Your task to perform on an android device: Open accessibility settings Image 0: 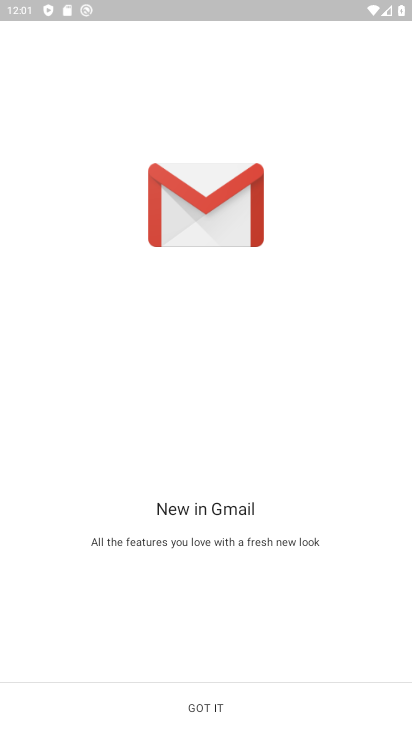
Step 0: press home button
Your task to perform on an android device: Open accessibility settings Image 1: 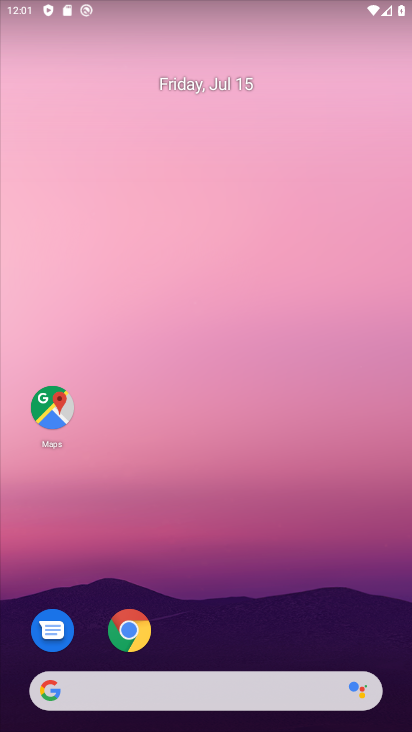
Step 1: drag from (215, 653) to (256, 186)
Your task to perform on an android device: Open accessibility settings Image 2: 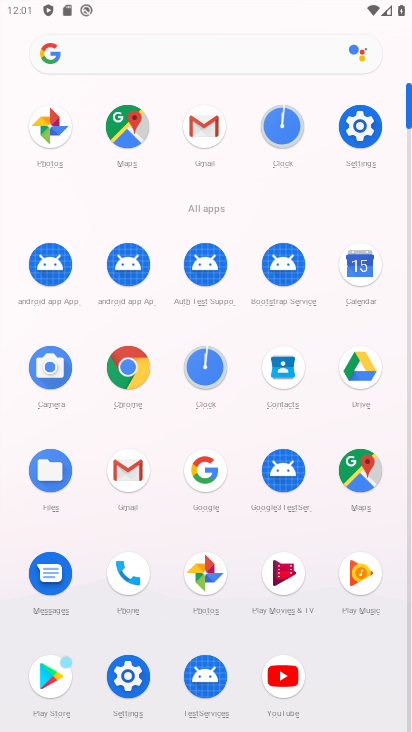
Step 2: click (120, 684)
Your task to perform on an android device: Open accessibility settings Image 3: 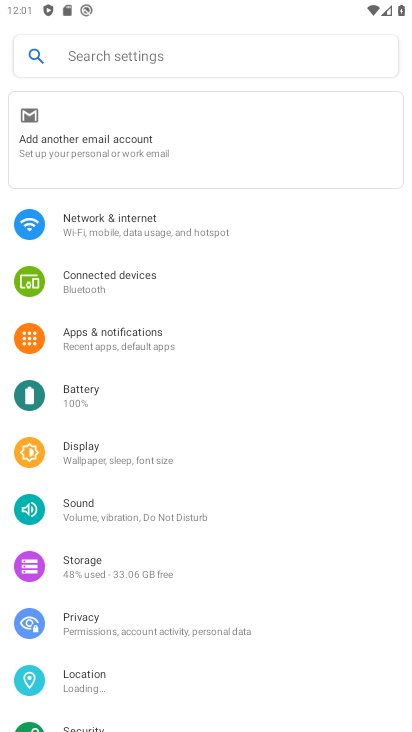
Step 3: drag from (183, 652) to (312, 286)
Your task to perform on an android device: Open accessibility settings Image 4: 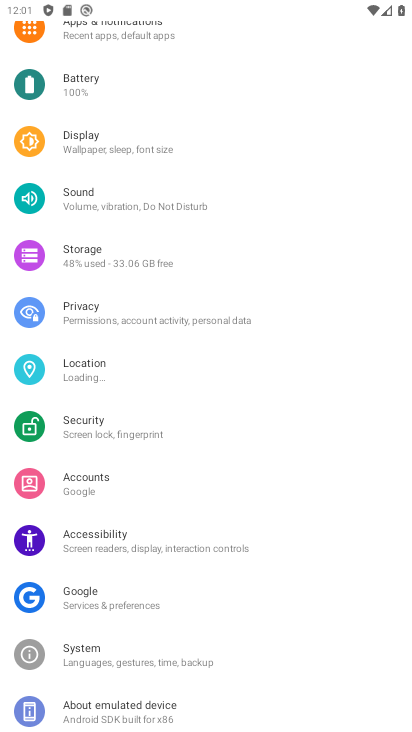
Step 4: click (132, 537)
Your task to perform on an android device: Open accessibility settings Image 5: 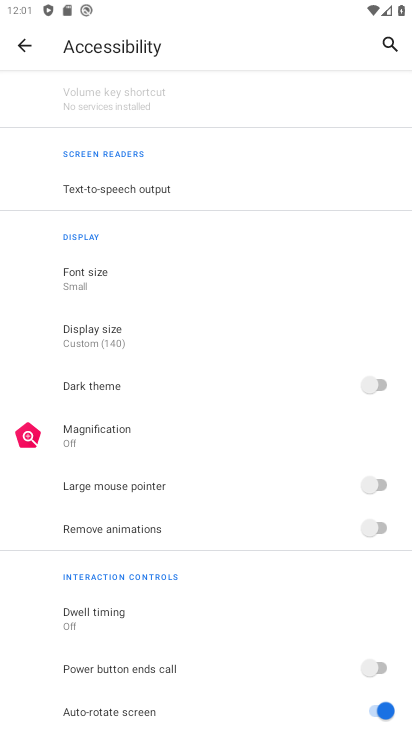
Step 5: task complete